Your task to perform on an android device: check storage Image 0: 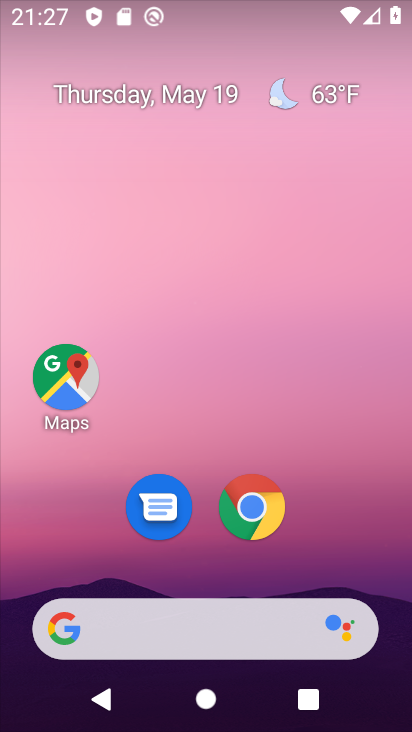
Step 0: drag from (389, 534) to (265, 72)
Your task to perform on an android device: check storage Image 1: 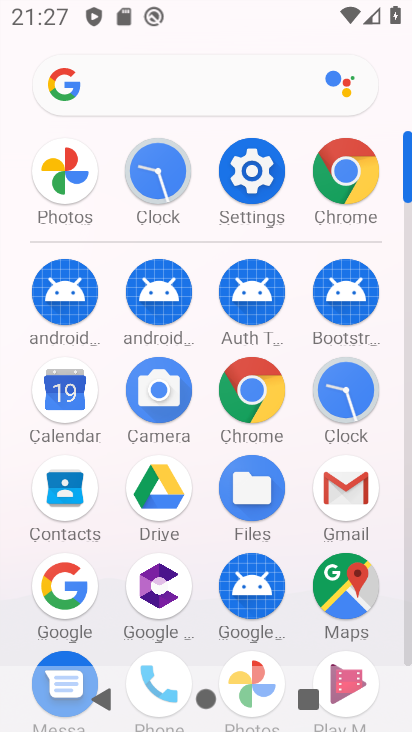
Step 1: click (259, 173)
Your task to perform on an android device: check storage Image 2: 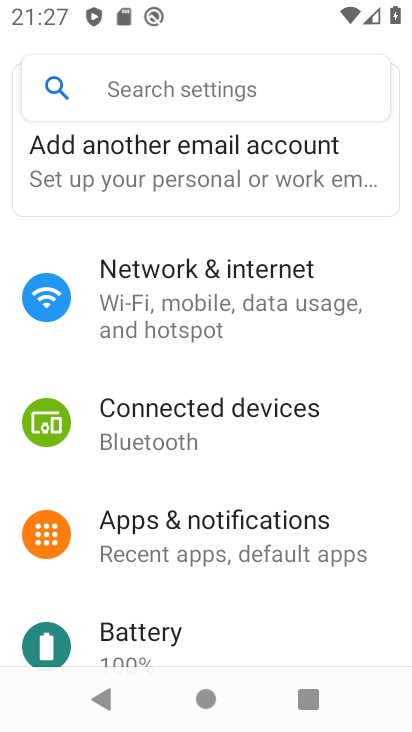
Step 2: drag from (242, 589) to (248, 194)
Your task to perform on an android device: check storage Image 3: 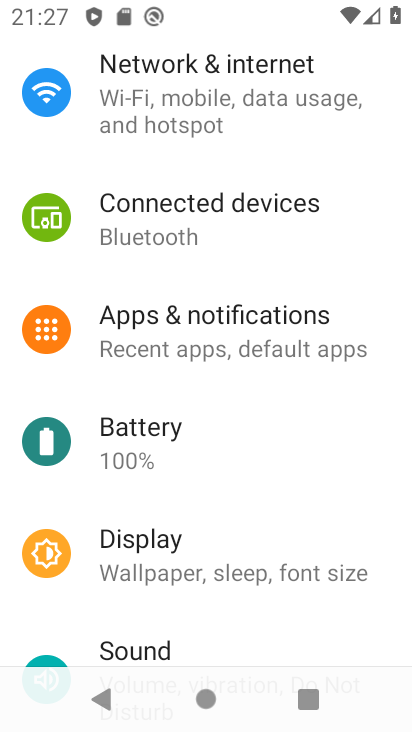
Step 3: drag from (250, 605) to (242, 241)
Your task to perform on an android device: check storage Image 4: 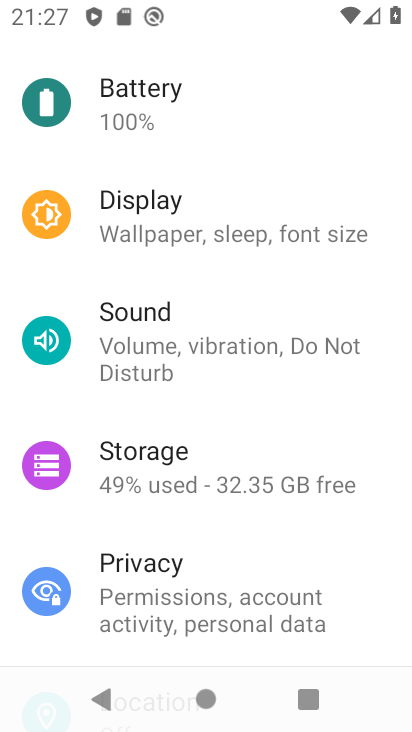
Step 4: click (197, 443)
Your task to perform on an android device: check storage Image 5: 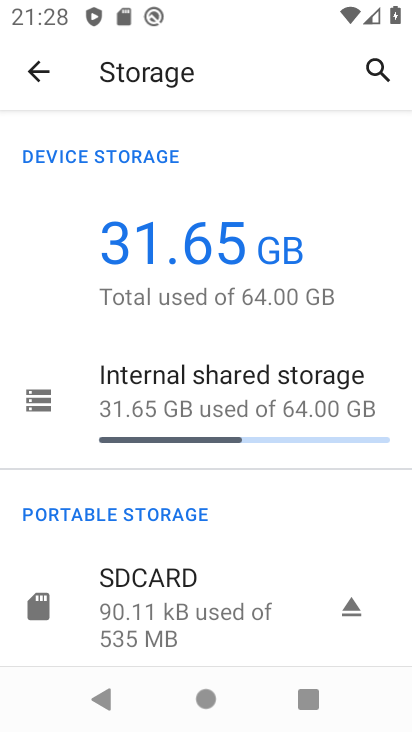
Step 5: task complete